Your task to perform on an android device: turn off data saver in the chrome app Image 0: 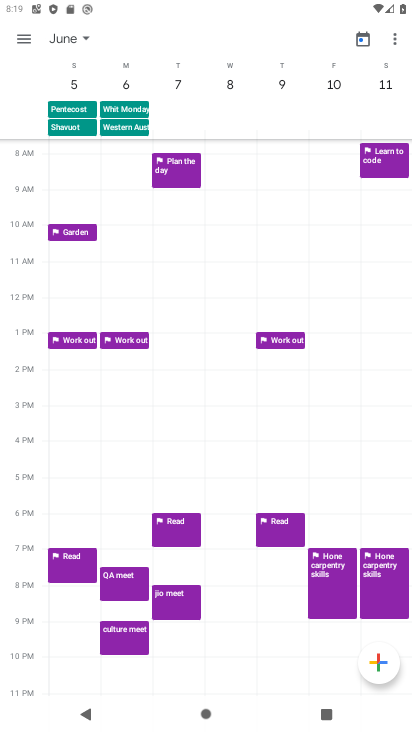
Step 0: press home button
Your task to perform on an android device: turn off data saver in the chrome app Image 1: 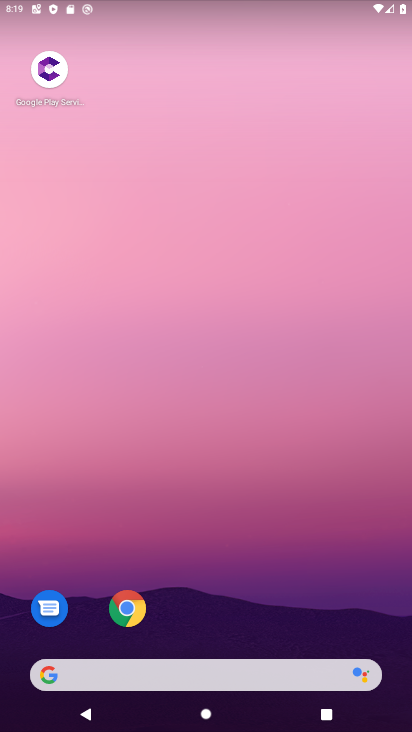
Step 1: drag from (220, 638) to (212, 8)
Your task to perform on an android device: turn off data saver in the chrome app Image 2: 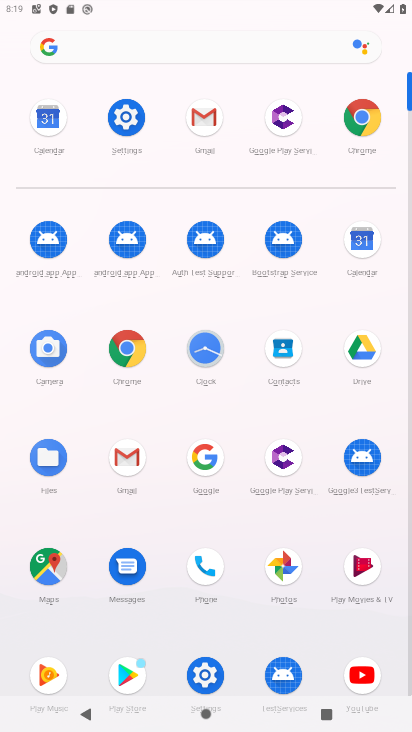
Step 2: click (369, 125)
Your task to perform on an android device: turn off data saver in the chrome app Image 3: 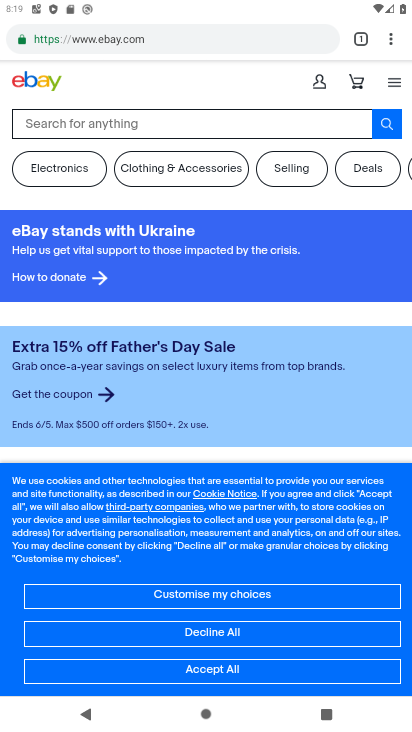
Step 3: click (391, 45)
Your task to perform on an android device: turn off data saver in the chrome app Image 4: 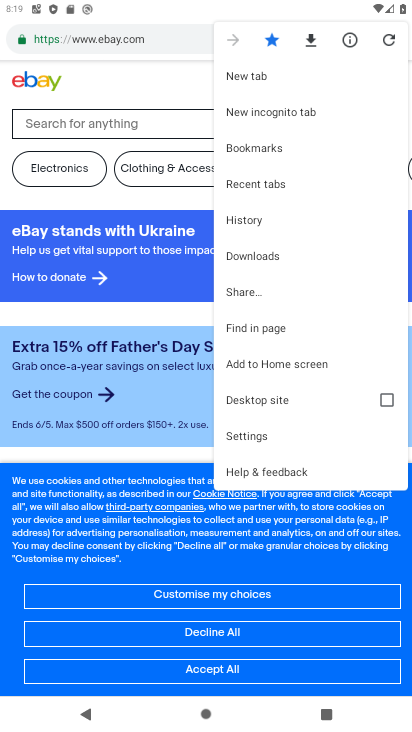
Step 4: click (253, 431)
Your task to perform on an android device: turn off data saver in the chrome app Image 5: 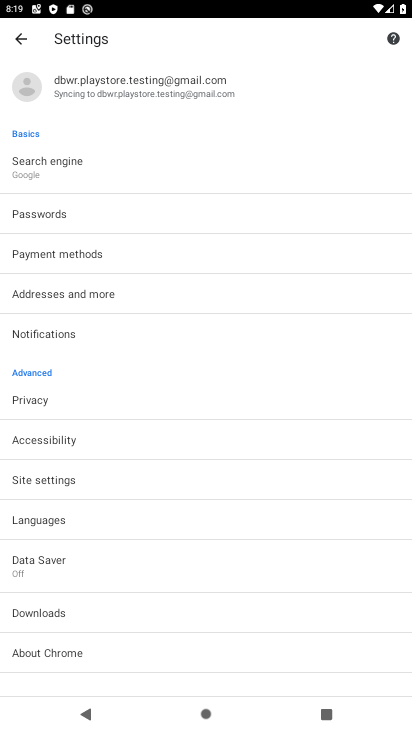
Step 5: click (23, 557)
Your task to perform on an android device: turn off data saver in the chrome app Image 6: 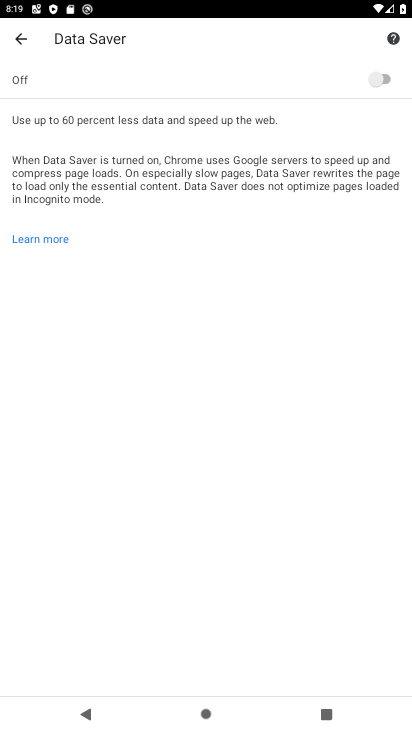
Step 6: task complete